Your task to perform on an android device: turn on sleep mode Image 0: 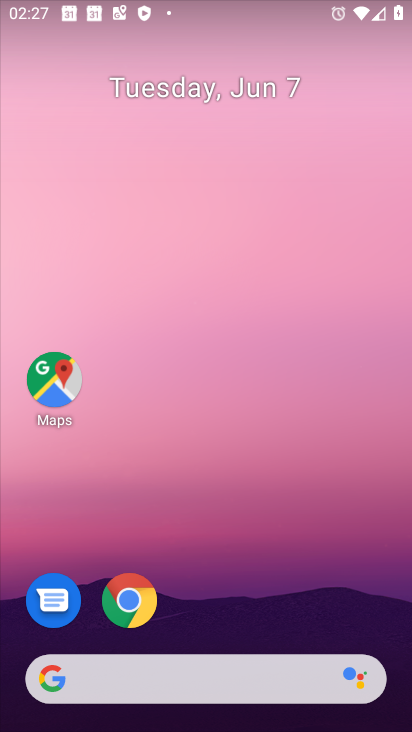
Step 0: drag from (224, 726) to (200, 103)
Your task to perform on an android device: turn on sleep mode Image 1: 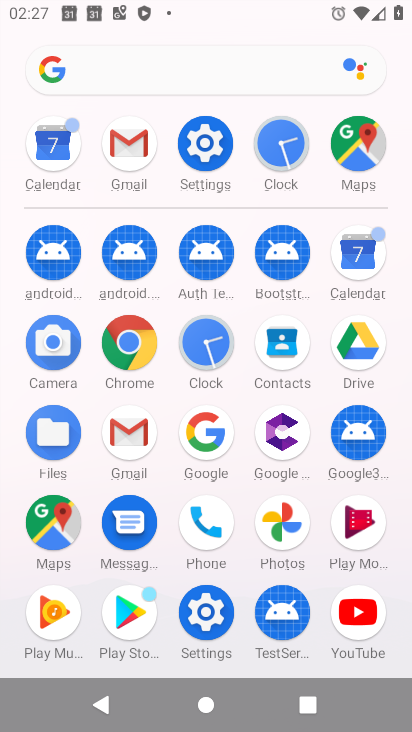
Step 1: click (199, 140)
Your task to perform on an android device: turn on sleep mode Image 2: 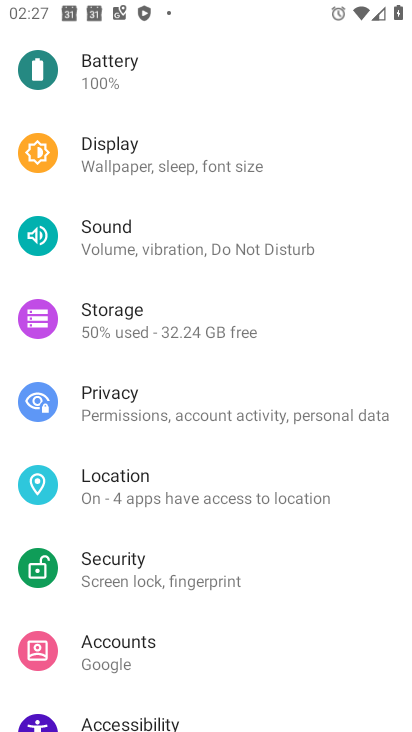
Step 2: drag from (227, 681) to (213, 238)
Your task to perform on an android device: turn on sleep mode Image 3: 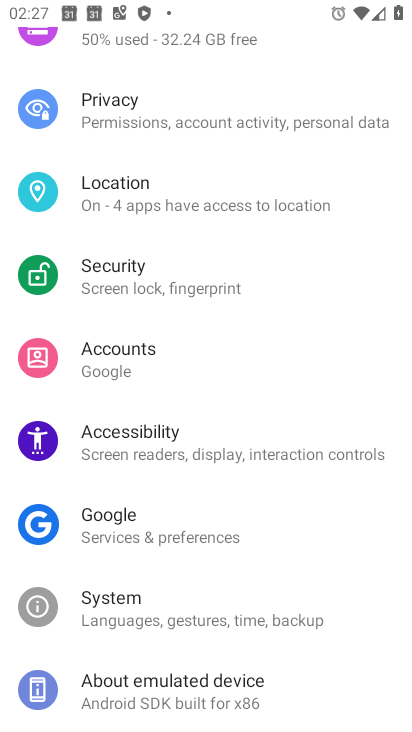
Step 3: drag from (165, 662) to (163, 300)
Your task to perform on an android device: turn on sleep mode Image 4: 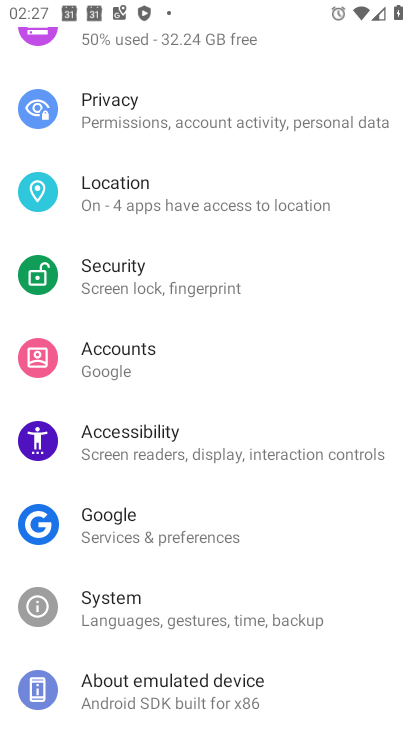
Step 4: drag from (248, 151) to (252, 584)
Your task to perform on an android device: turn on sleep mode Image 5: 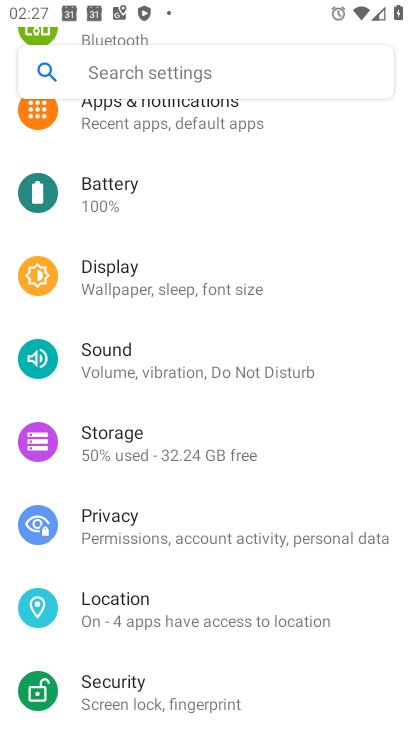
Step 5: drag from (250, 177) to (244, 588)
Your task to perform on an android device: turn on sleep mode Image 6: 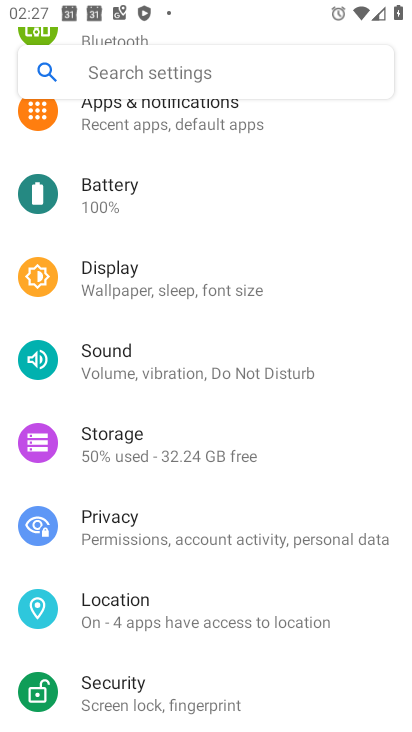
Step 6: drag from (224, 165) to (220, 490)
Your task to perform on an android device: turn on sleep mode Image 7: 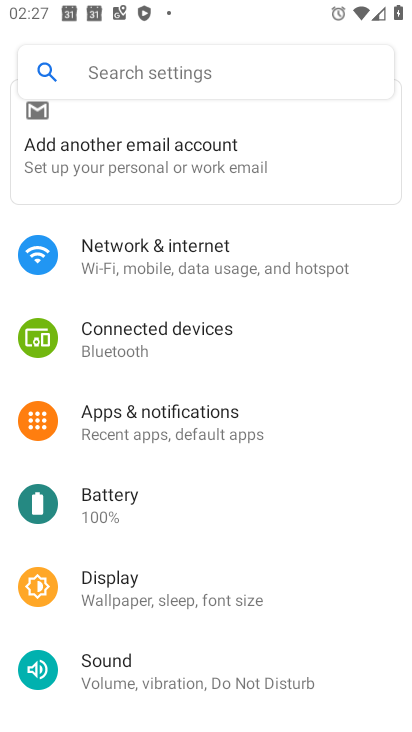
Step 7: click (183, 599)
Your task to perform on an android device: turn on sleep mode Image 8: 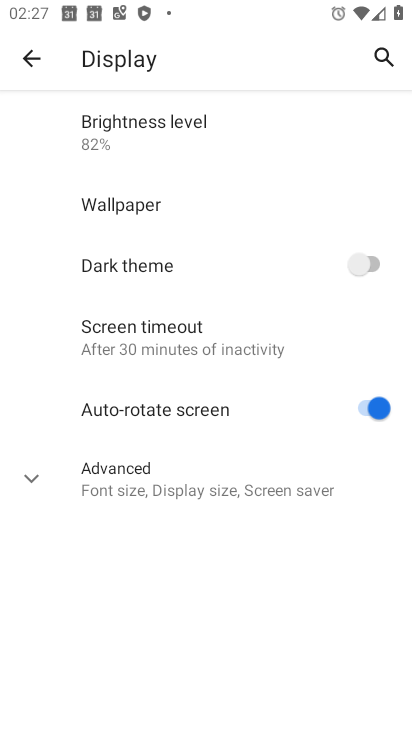
Step 8: task complete